Your task to perform on an android device: What's on my calendar today? Image 0: 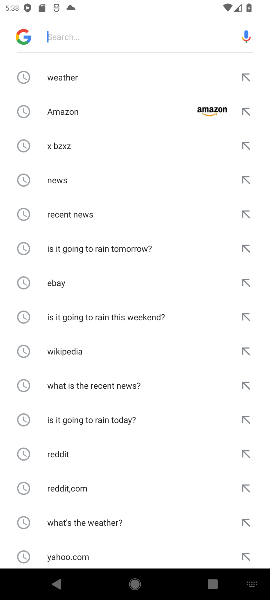
Step 0: press home button
Your task to perform on an android device: What's on my calendar today? Image 1: 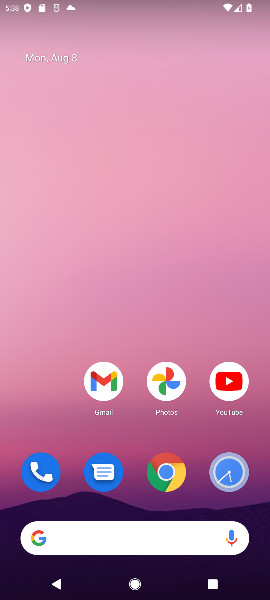
Step 1: drag from (140, 472) to (179, 85)
Your task to perform on an android device: What's on my calendar today? Image 2: 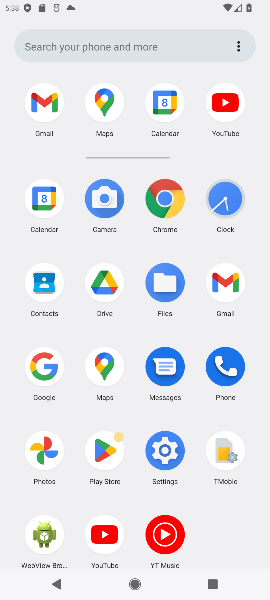
Step 2: click (161, 97)
Your task to perform on an android device: What's on my calendar today? Image 3: 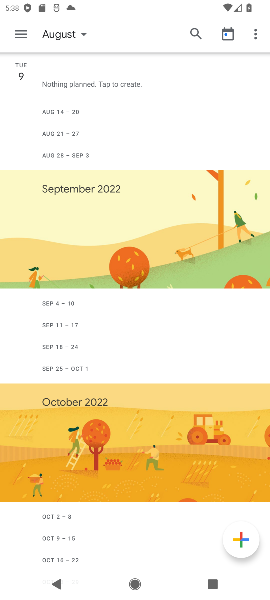
Step 3: click (82, 34)
Your task to perform on an android device: What's on my calendar today? Image 4: 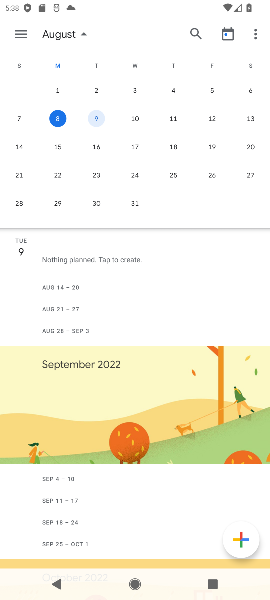
Step 4: click (51, 122)
Your task to perform on an android device: What's on my calendar today? Image 5: 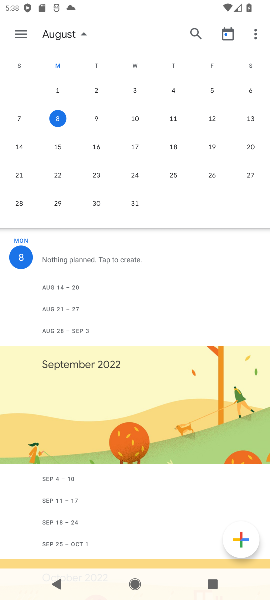
Step 5: task complete